Your task to perform on an android device: refresh tabs in the chrome app Image 0: 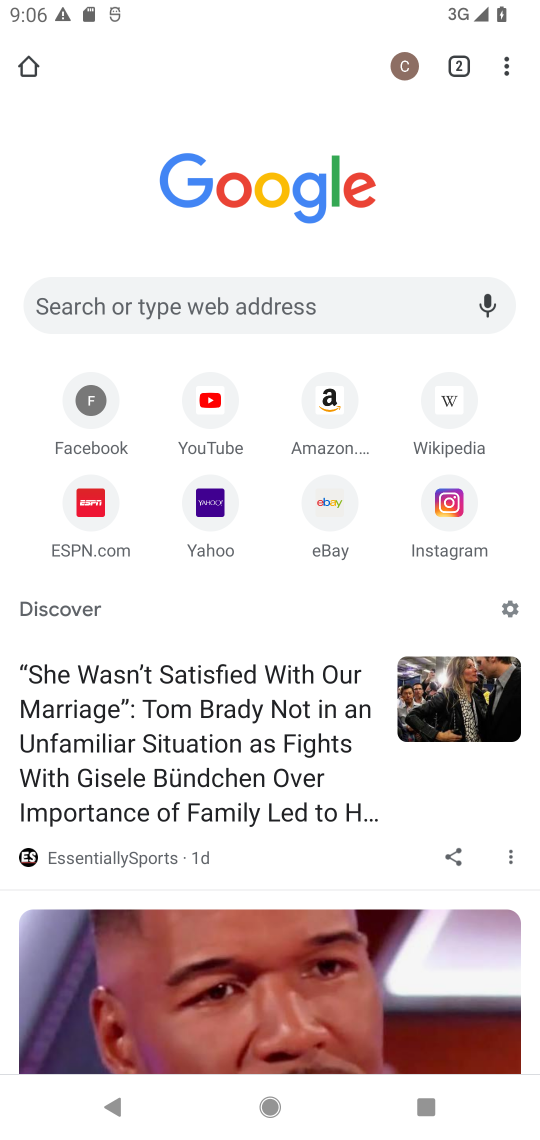
Step 0: click (507, 69)
Your task to perform on an android device: refresh tabs in the chrome app Image 1: 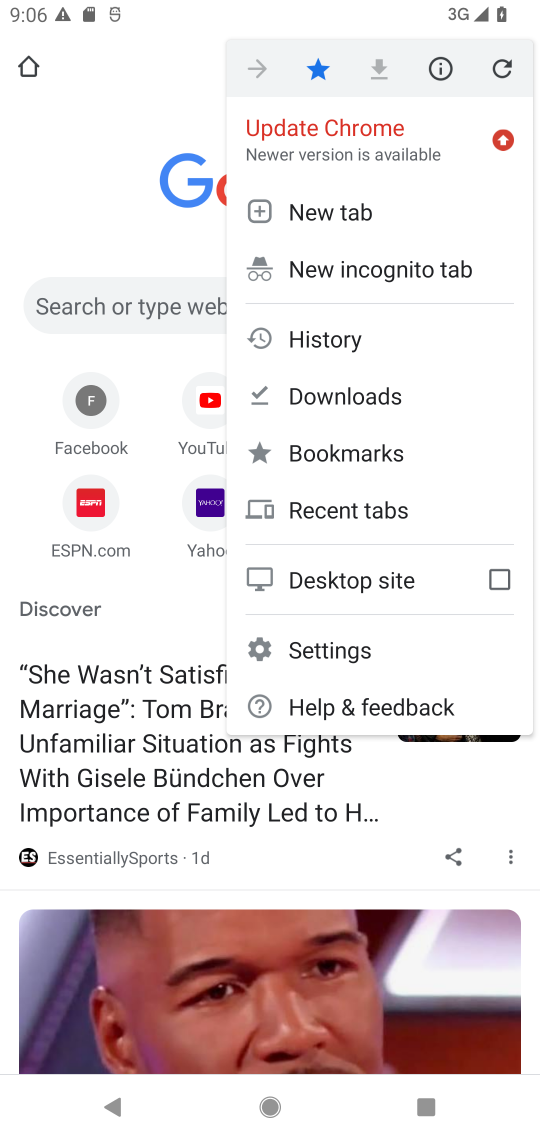
Step 1: click (507, 67)
Your task to perform on an android device: refresh tabs in the chrome app Image 2: 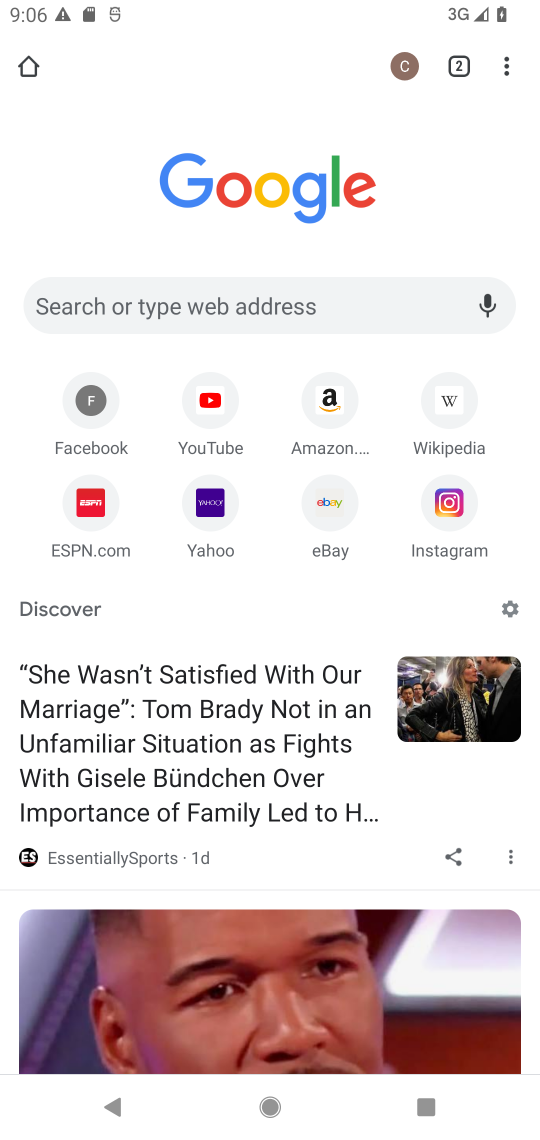
Step 2: click (507, 67)
Your task to perform on an android device: refresh tabs in the chrome app Image 3: 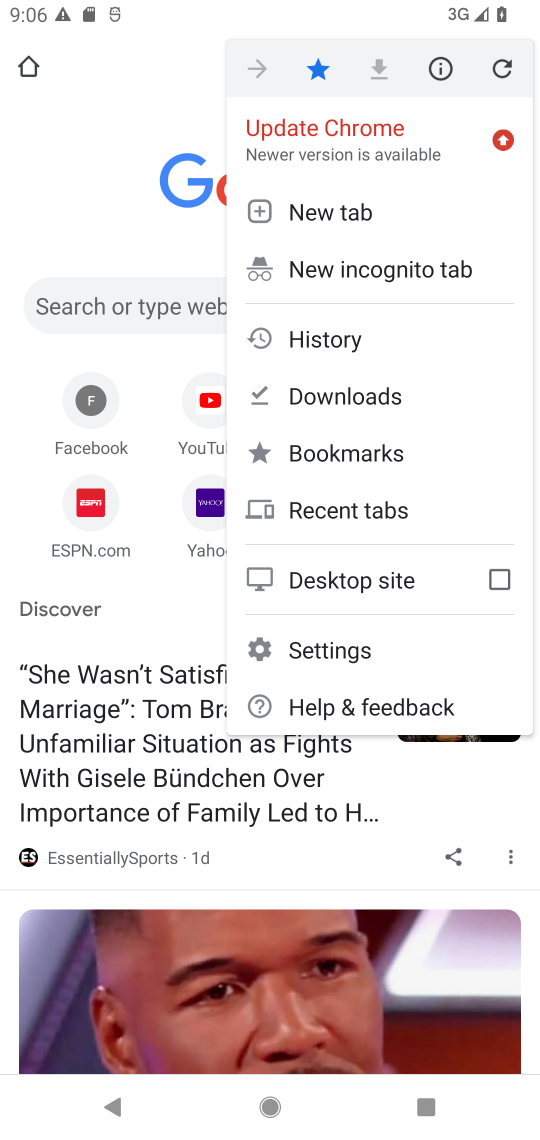
Step 3: click (498, 66)
Your task to perform on an android device: refresh tabs in the chrome app Image 4: 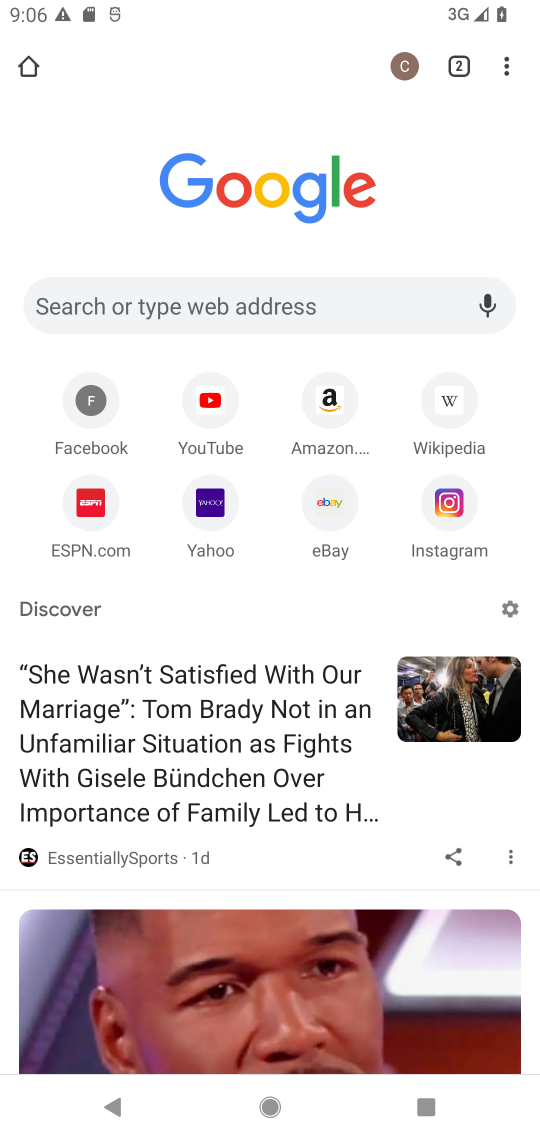
Step 4: task complete